Your task to perform on an android device: change the clock display to digital Image 0: 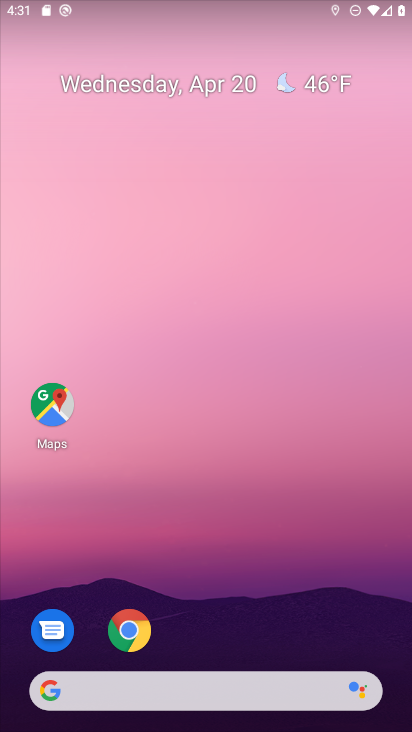
Step 0: drag from (182, 653) to (185, 131)
Your task to perform on an android device: change the clock display to digital Image 1: 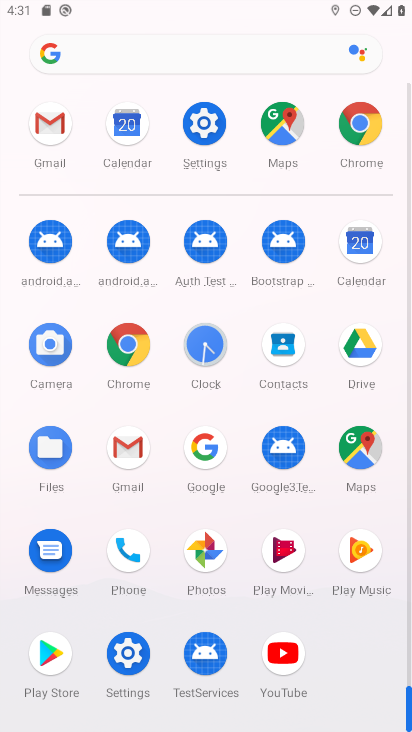
Step 1: click (198, 354)
Your task to perform on an android device: change the clock display to digital Image 2: 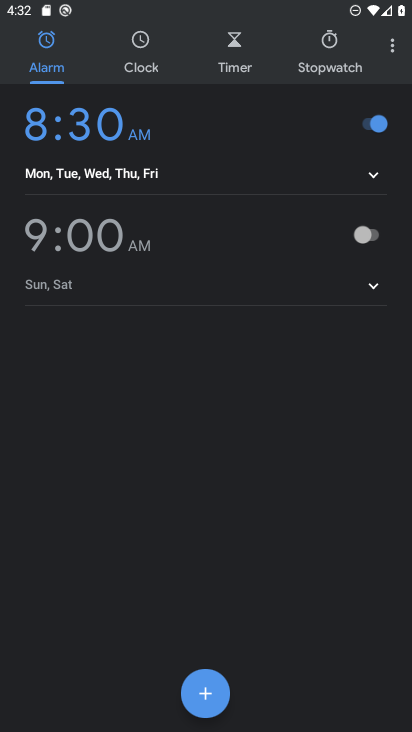
Step 2: click (391, 57)
Your task to perform on an android device: change the clock display to digital Image 3: 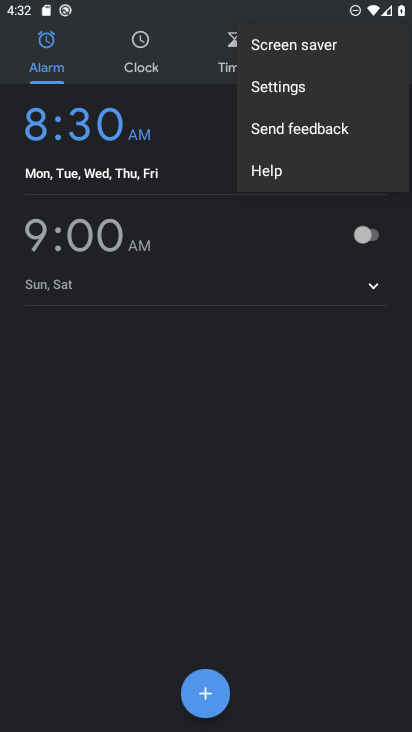
Step 3: click (318, 82)
Your task to perform on an android device: change the clock display to digital Image 4: 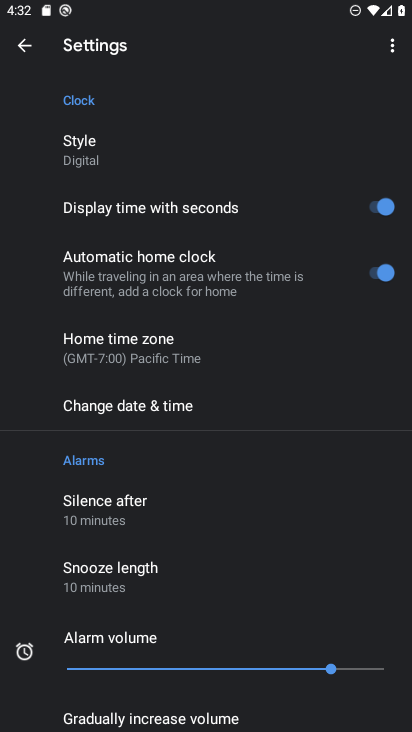
Step 4: task complete